Your task to perform on an android device: Go to Yahoo.com Image 0: 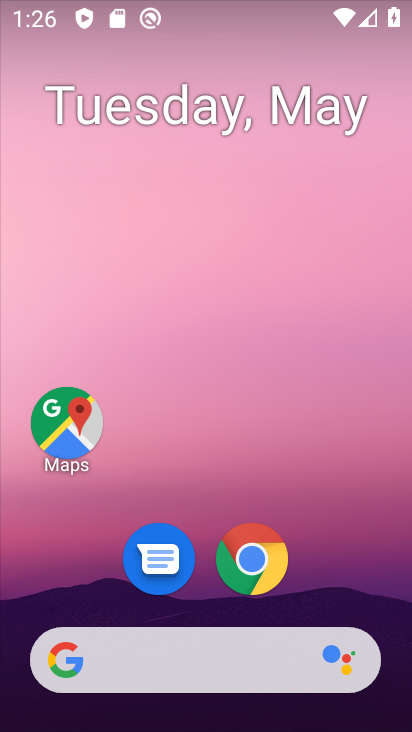
Step 0: drag from (384, 638) to (192, 57)
Your task to perform on an android device: Go to Yahoo.com Image 1: 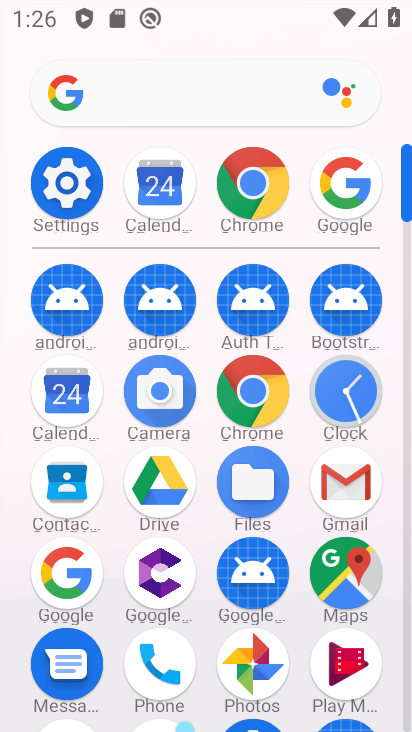
Step 1: click (247, 201)
Your task to perform on an android device: Go to Yahoo.com Image 2: 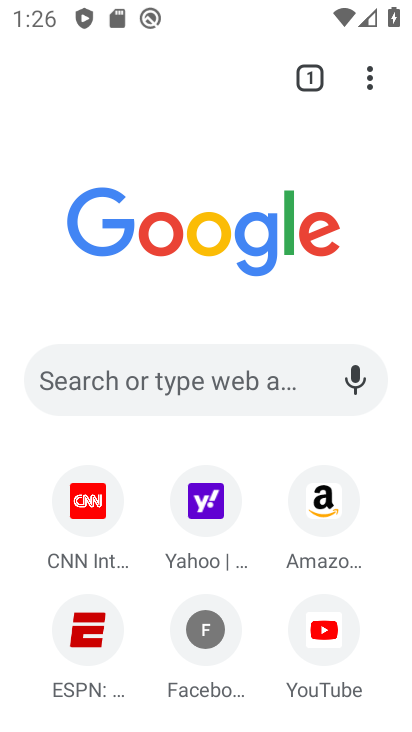
Step 2: click (192, 508)
Your task to perform on an android device: Go to Yahoo.com Image 3: 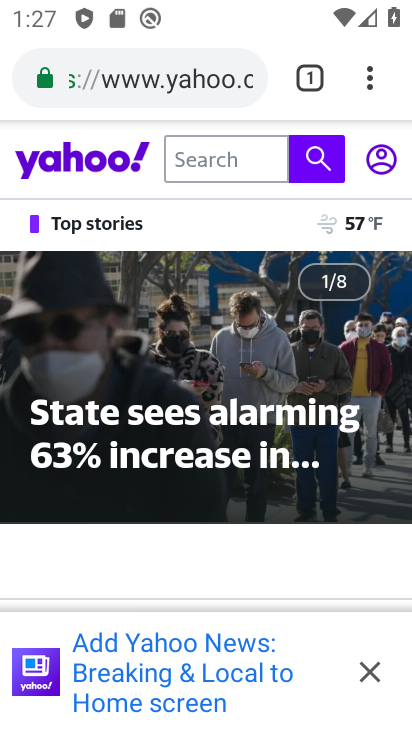
Step 3: task complete